Your task to perform on an android device: set the stopwatch Image 0: 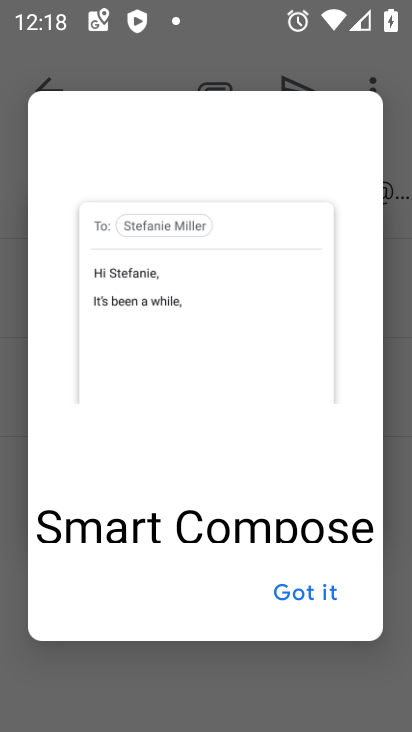
Step 0: press home button
Your task to perform on an android device: set the stopwatch Image 1: 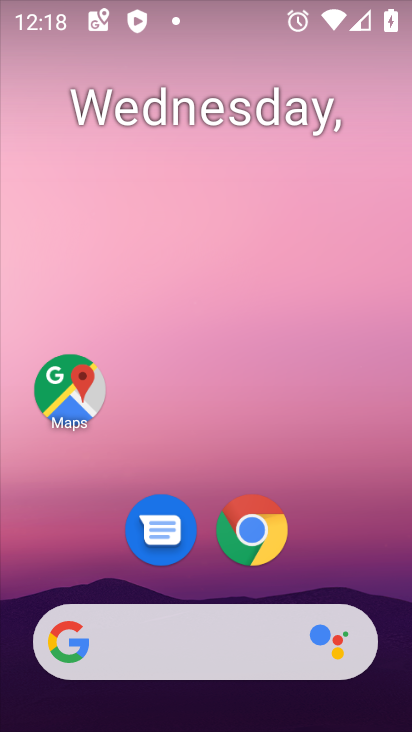
Step 1: drag from (209, 580) to (296, 193)
Your task to perform on an android device: set the stopwatch Image 2: 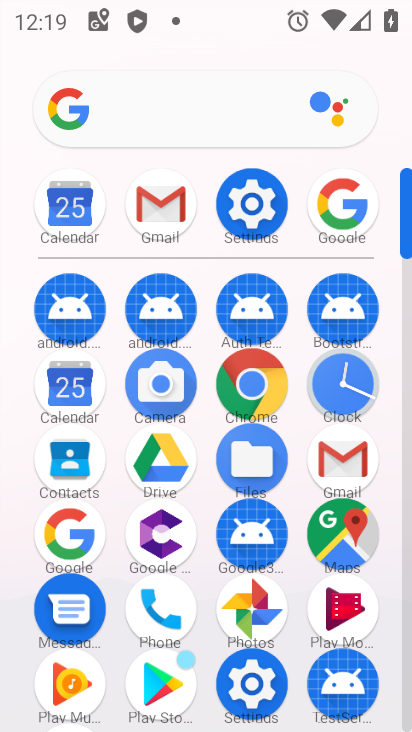
Step 2: click (346, 388)
Your task to perform on an android device: set the stopwatch Image 3: 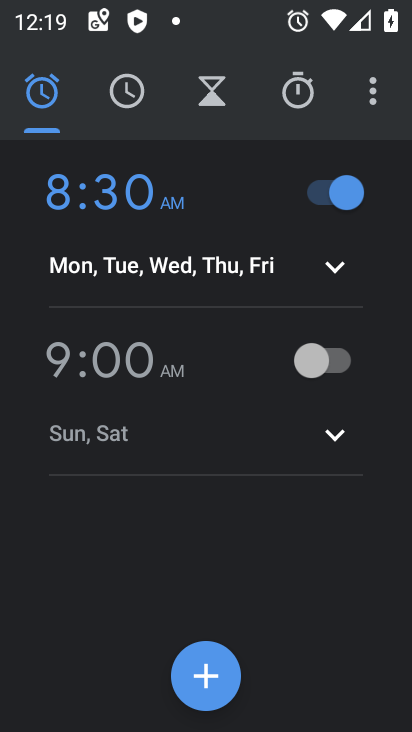
Step 3: click (308, 93)
Your task to perform on an android device: set the stopwatch Image 4: 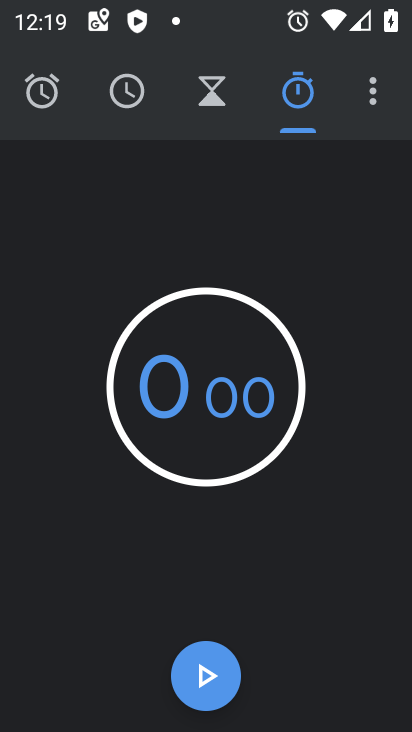
Step 4: task complete